Your task to perform on an android device: Search for the best rated coffee table on Target. Image 0: 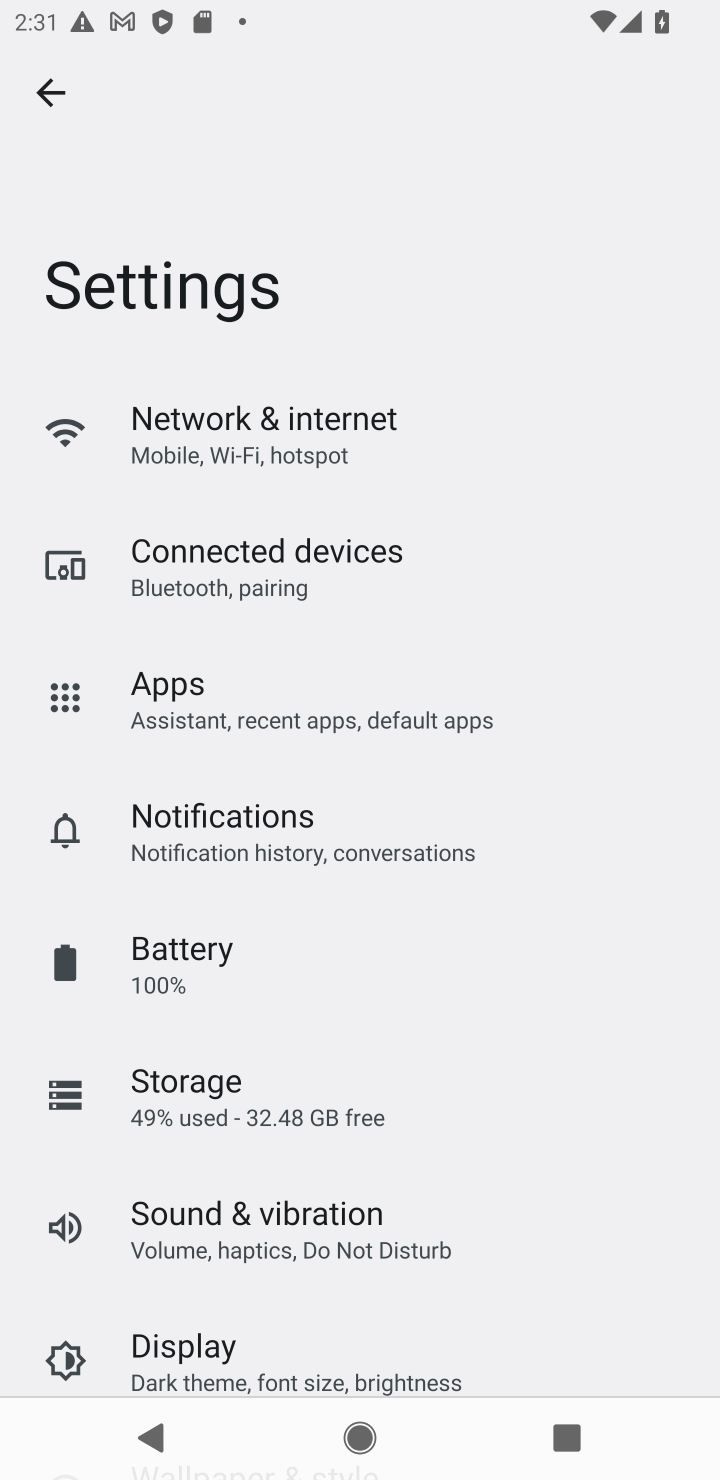
Step 0: press home button
Your task to perform on an android device: Search for the best rated coffee table on Target. Image 1: 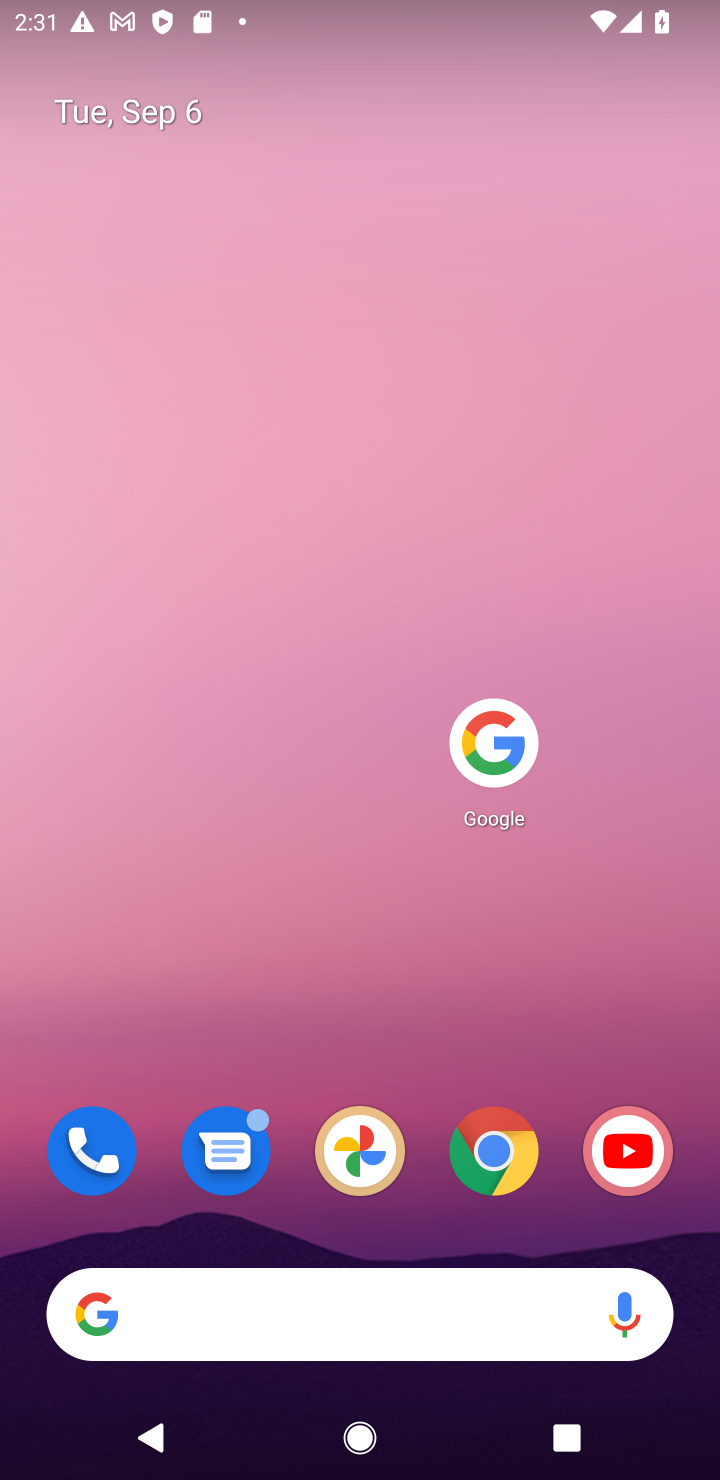
Step 1: click (480, 746)
Your task to perform on an android device: Search for the best rated coffee table on Target. Image 2: 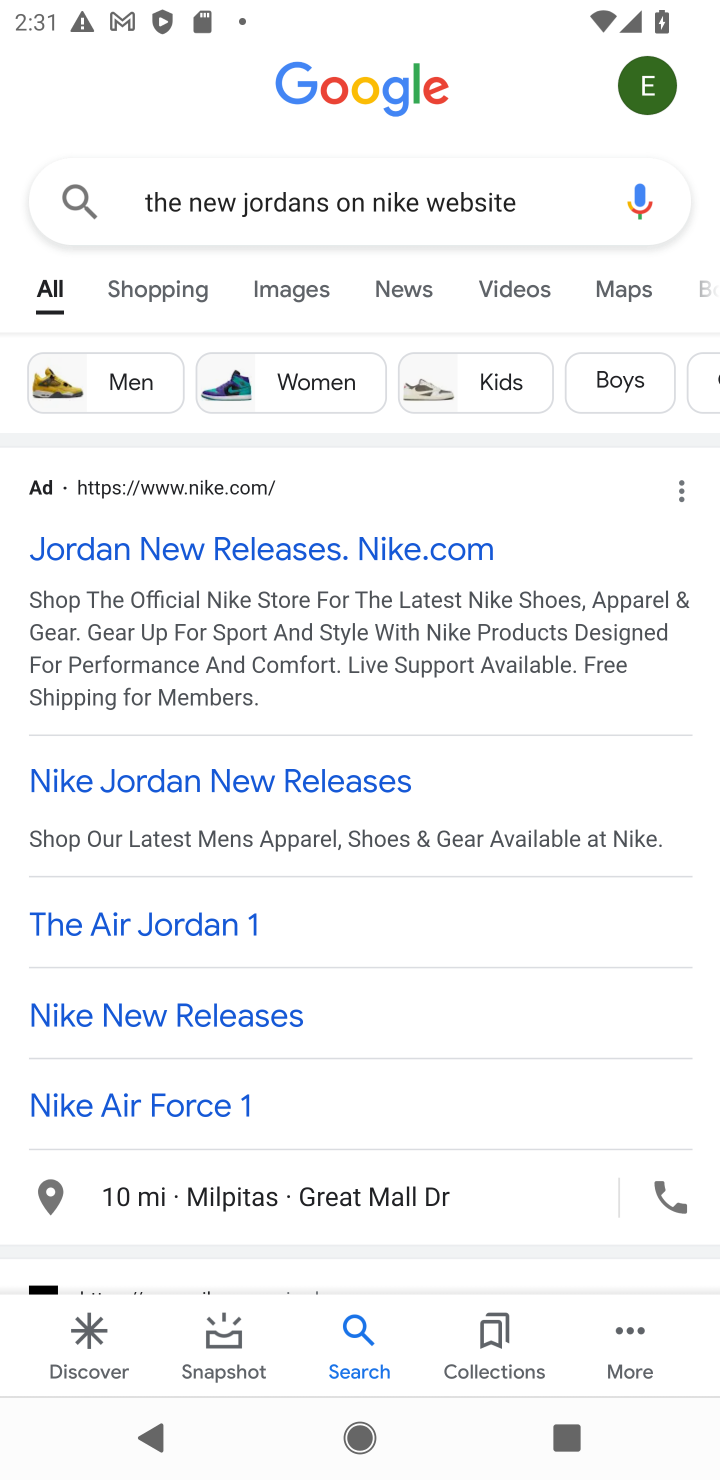
Step 2: click (405, 193)
Your task to perform on an android device: Search for the best rated coffee table on Target. Image 3: 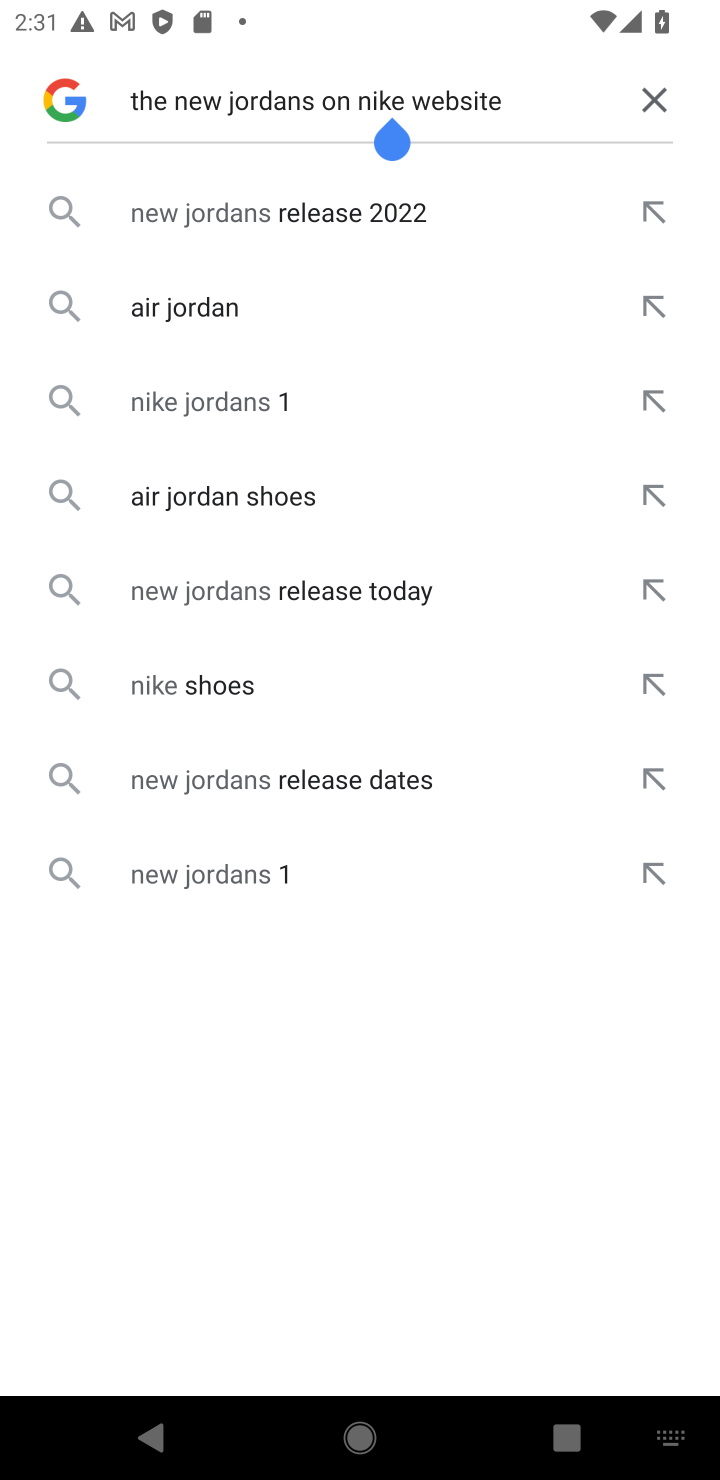
Step 3: click (640, 110)
Your task to perform on an android device: Search for the best rated coffee table on Target. Image 4: 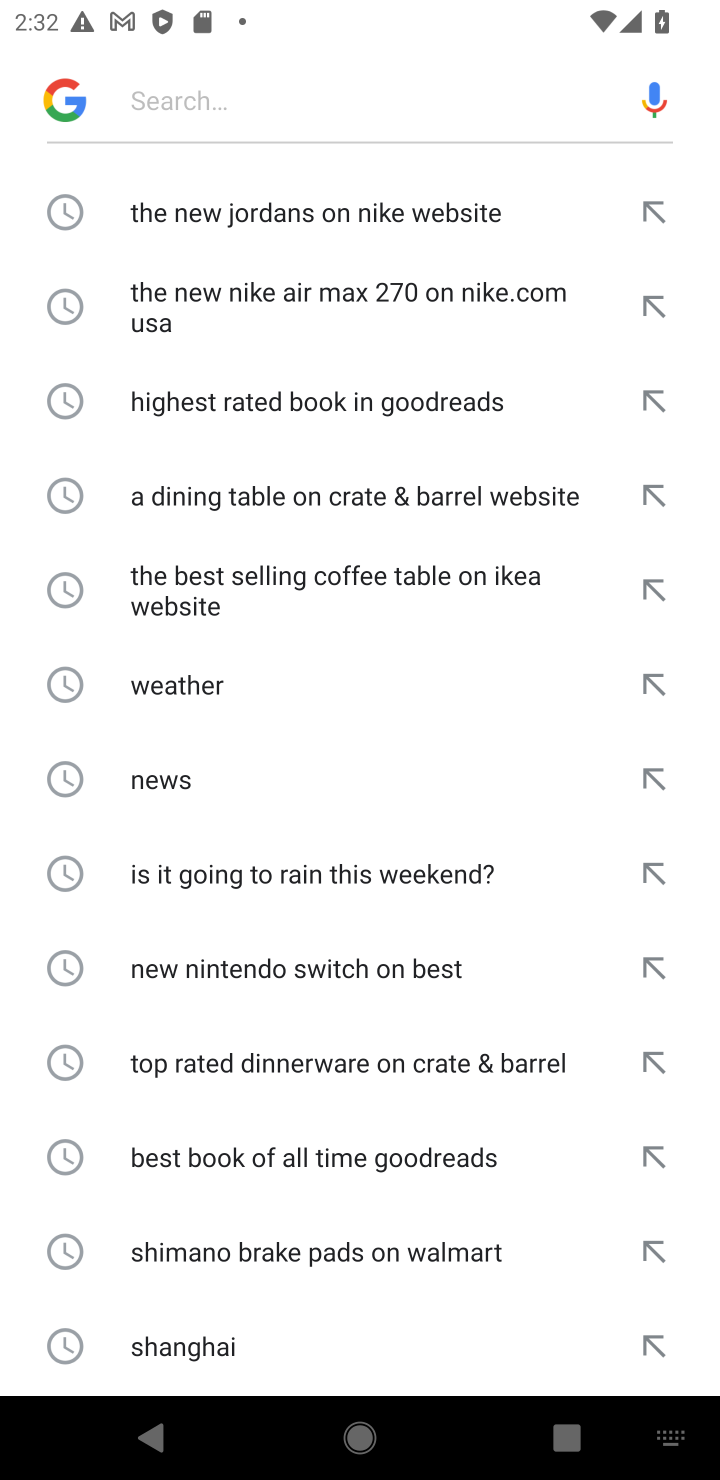
Step 4: click (261, 98)
Your task to perform on an android device: Search for the best rated coffee table on Target. Image 5: 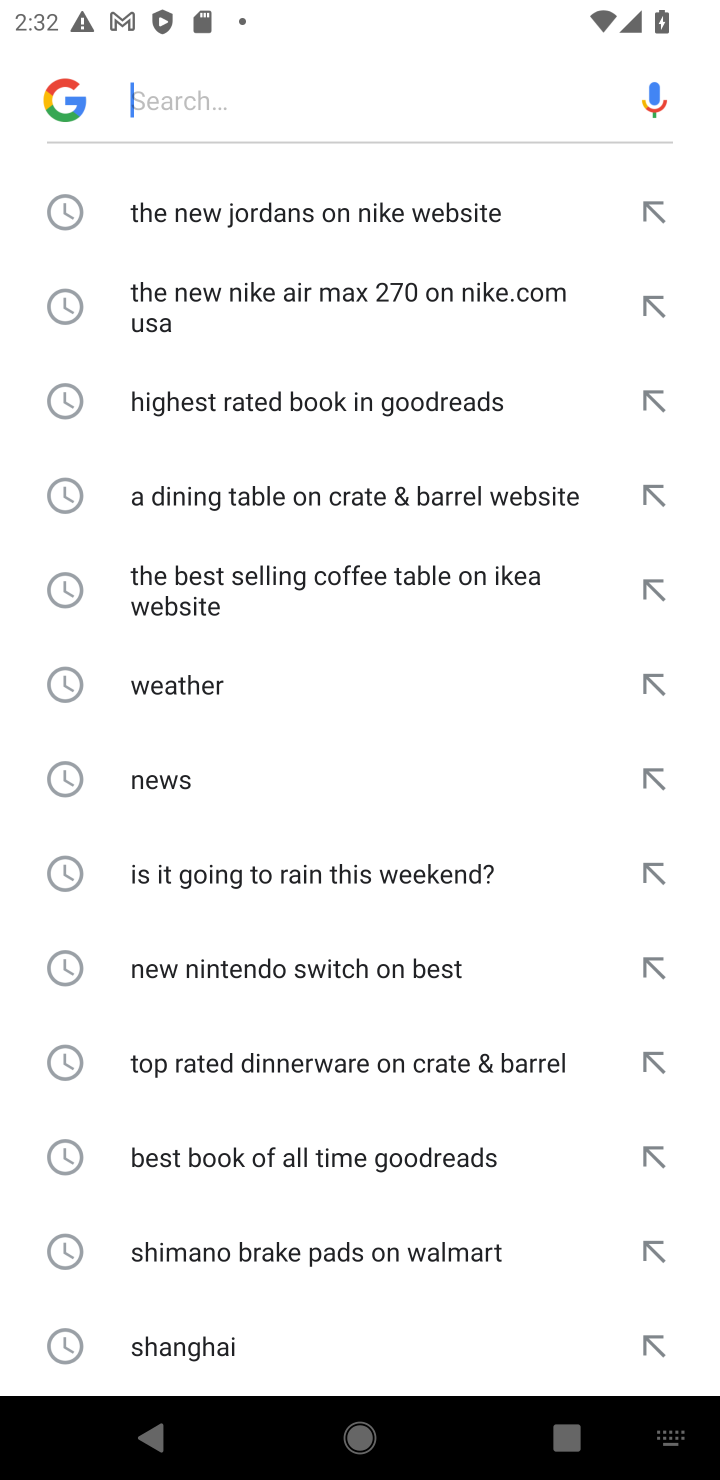
Step 5: type " the best rated coffee table on Target "
Your task to perform on an android device: Search for the best rated coffee table on Target. Image 6: 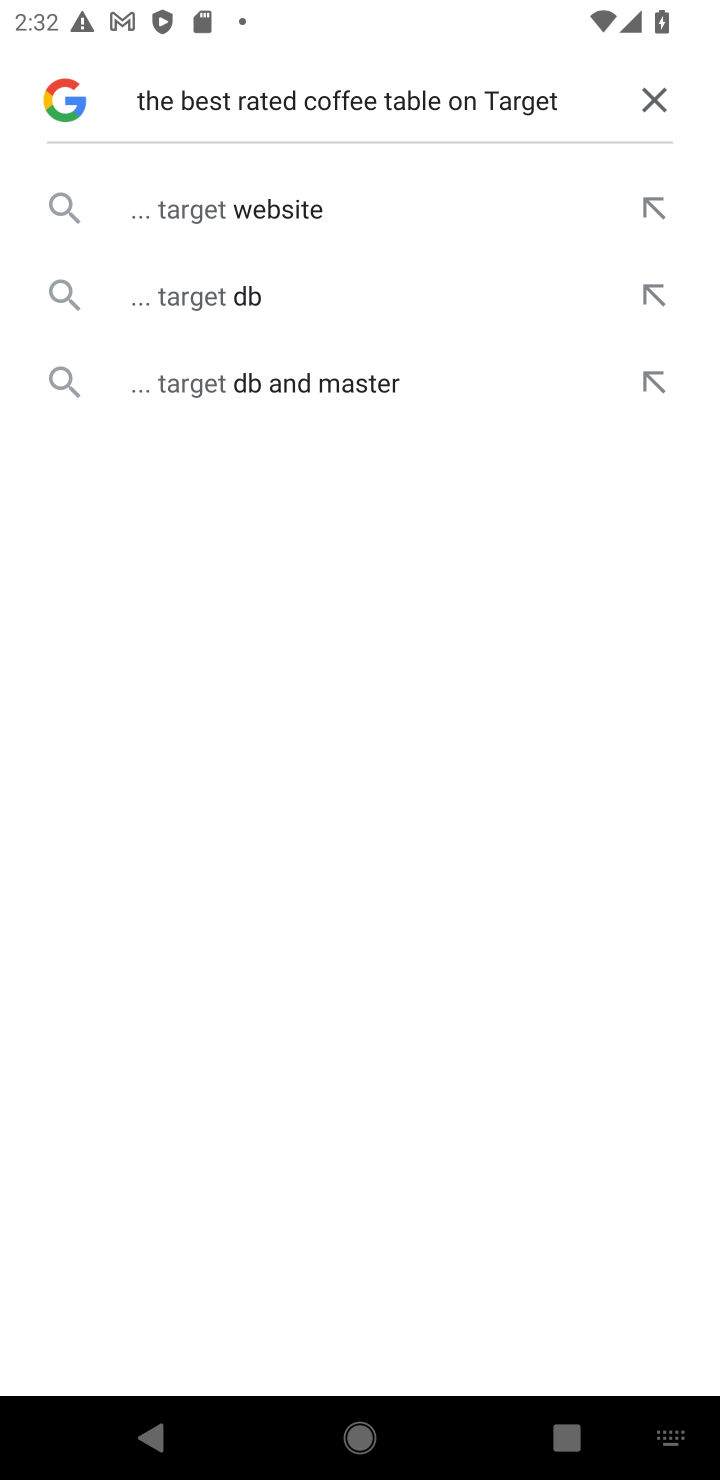
Step 6: click (167, 207)
Your task to perform on an android device: Search for the best rated coffee table on Target. Image 7: 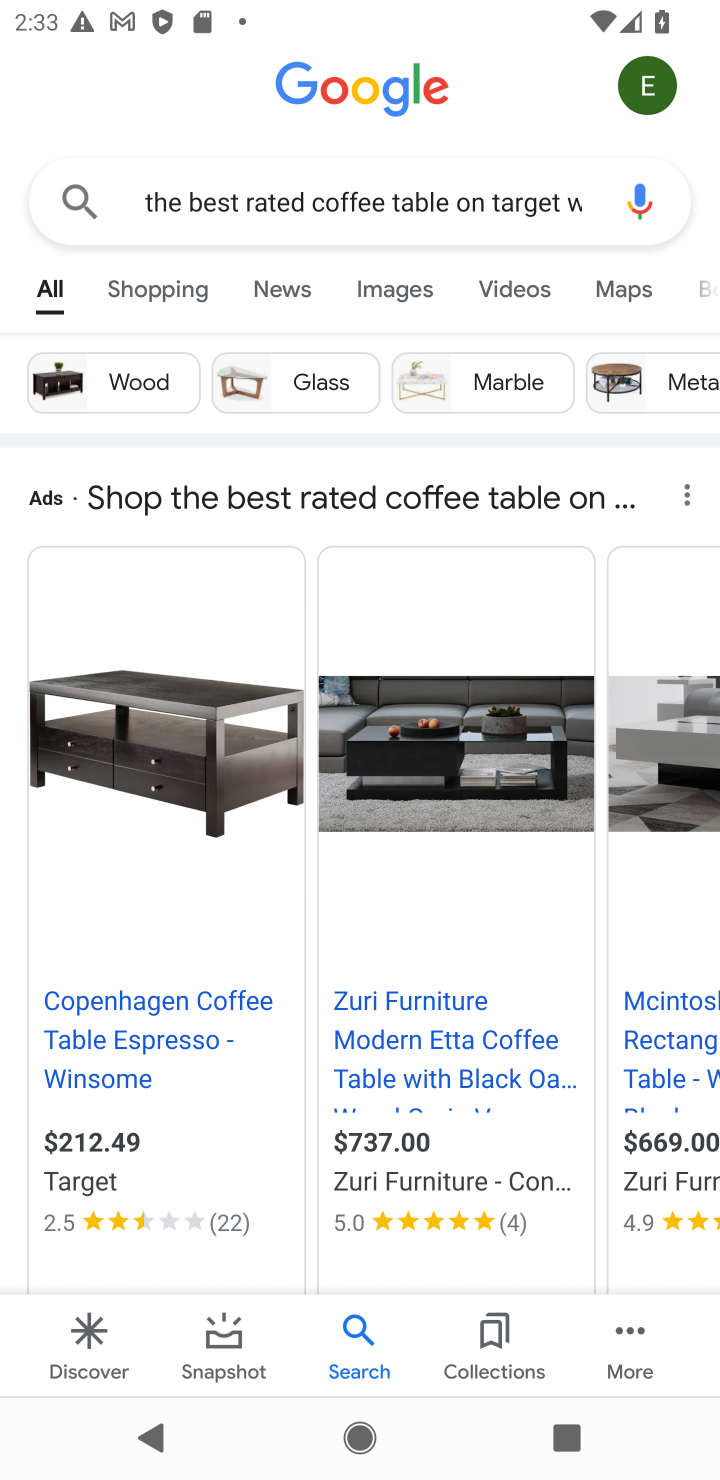
Step 7: task complete